Your task to perform on an android device: delete the emails in spam in the gmail app Image 0: 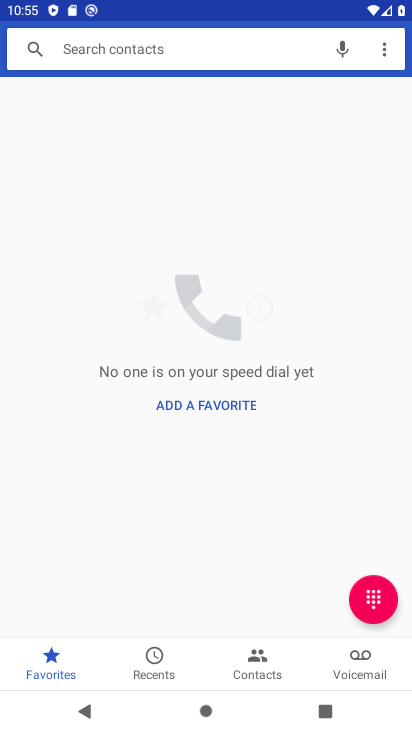
Step 0: press home button
Your task to perform on an android device: delete the emails in spam in the gmail app Image 1: 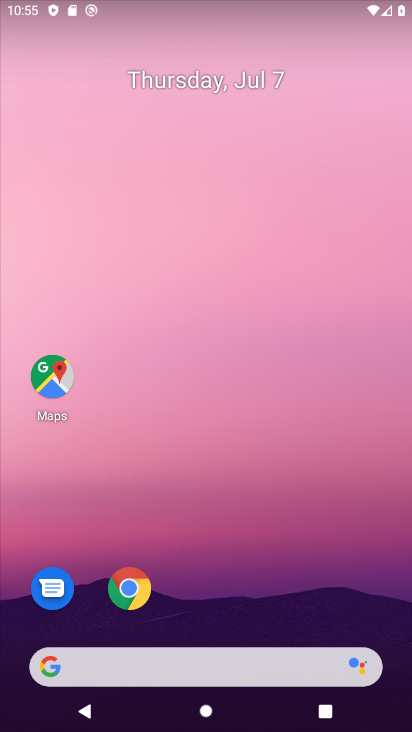
Step 1: drag from (237, 533) to (129, 109)
Your task to perform on an android device: delete the emails in spam in the gmail app Image 2: 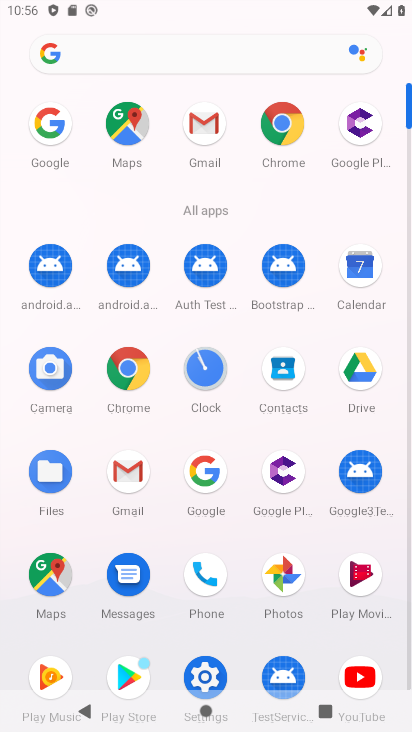
Step 2: click (201, 124)
Your task to perform on an android device: delete the emails in spam in the gmail app Image 3: 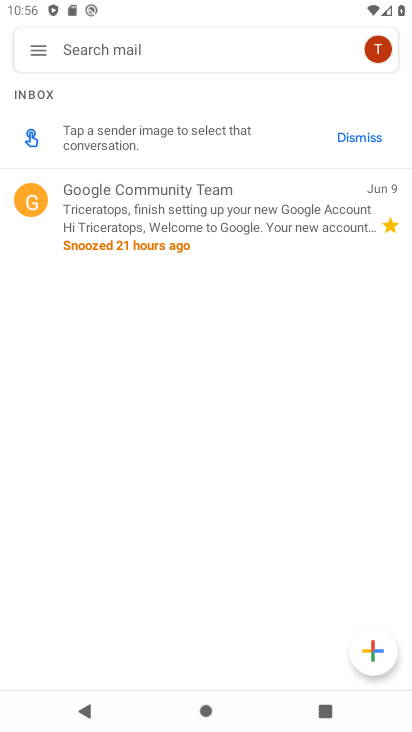
Step 3: click (37, 49)
Your task to perform on an android device: delete the emails in spam in the gmail app Image 4: 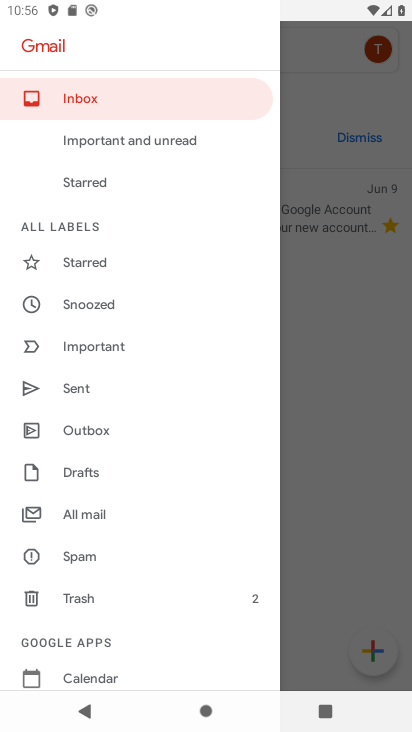
Step 4: click (82, 551)
Your task to perform on an android device: delete the emails in spam in the gmail app Image 5: 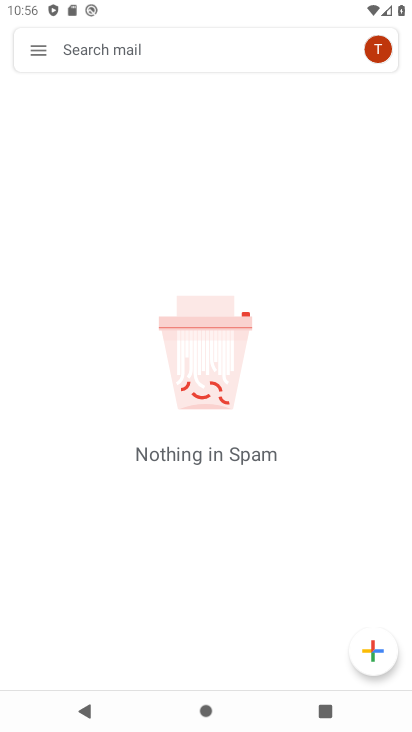
Step 5: task complete